Your task to perform on an android device: uninstall "Duolingo: language lessons" Image 0: 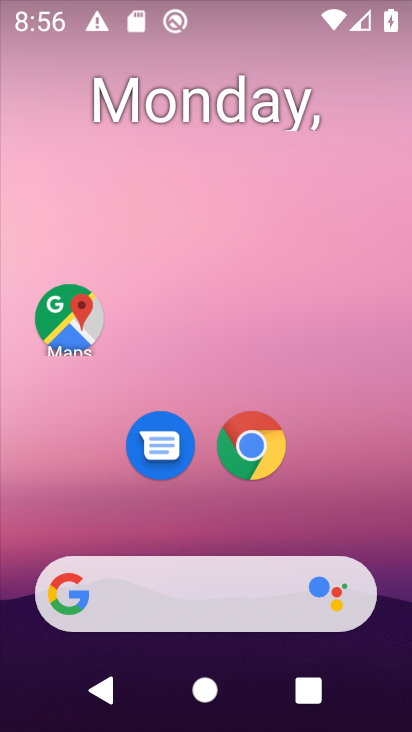
Step 0: drag from (386, 543) to (219, 39)
Your task to perform on an android device: uninstall "Duolingo: language lessons" Image 1: 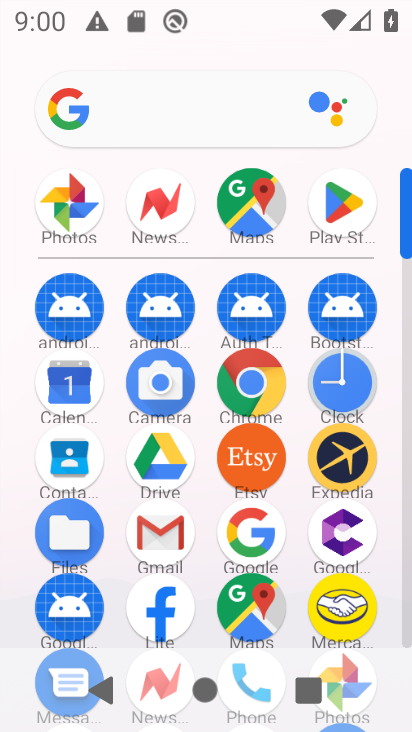
Step 1: click (349, 204)
Your task to perform on an android device: uninstall "Duolingo: language lessons" Image 2: 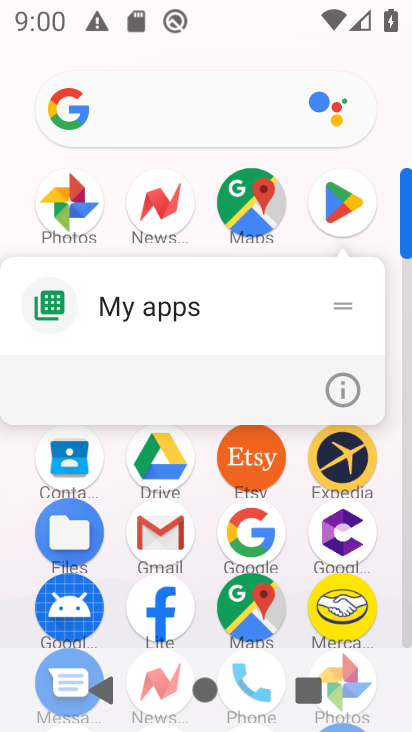
Step 2: click (349, 202)
Your task to perform on an android device: uninstall "Duolingo: language lessons" Image 3: 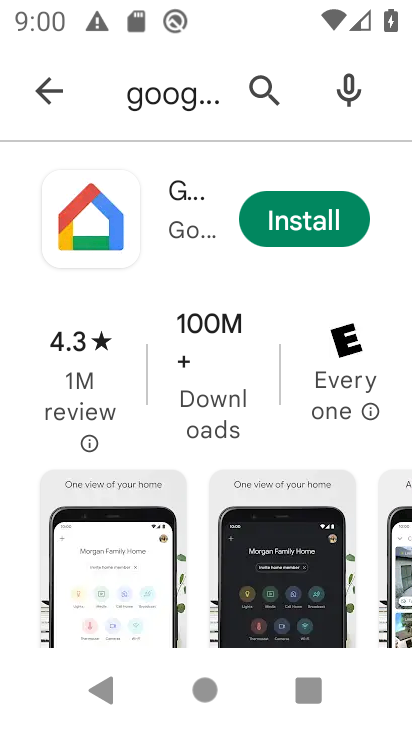
Step 3: press back button
Your task to perform on an android device: uninstall "Duolingo: language lessons" Image 4: 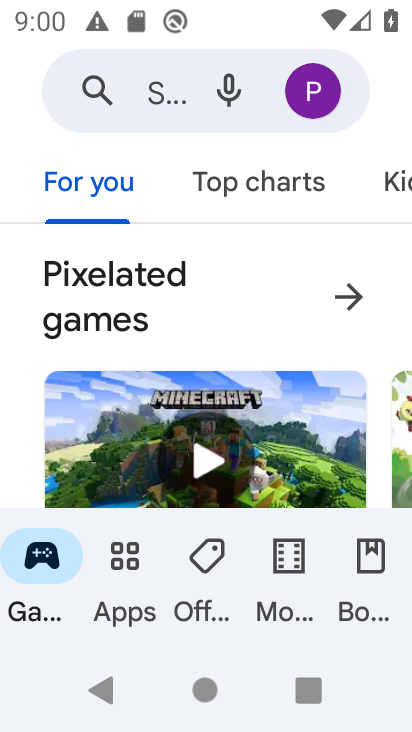
Step 4: click (142, 101)
Your task to perform on an android device: uninstall "Duolingo: language lessons" Image 5: 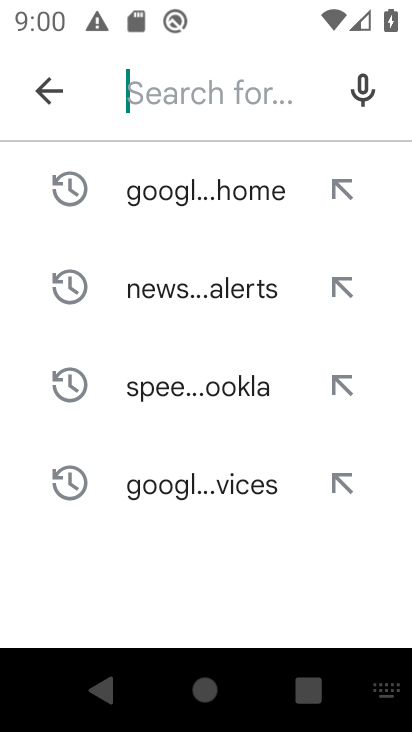
Step 5: type "Duolingo: language lessons"
Your task to perform on an android device: uninstall "Duolingo: language lessons" Image 6: 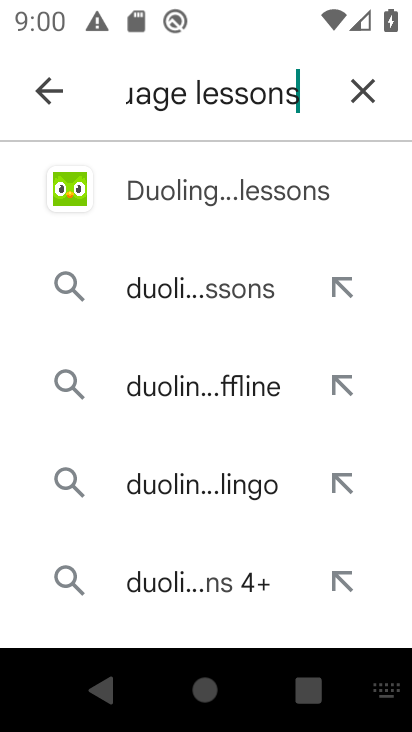
Step 6: click (159, 187)
Your task to perform on an android device: uninstall "Duolingo: language lessons" Image 7: 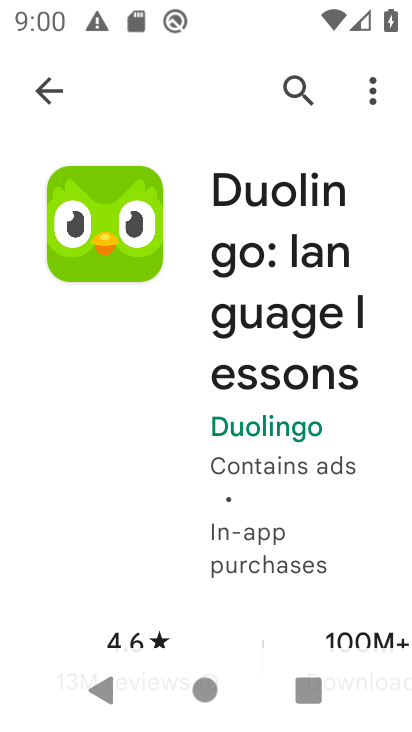
Step 7: task complete